Your task to perform on an android device: toggle translation in the chrome app Image 0: 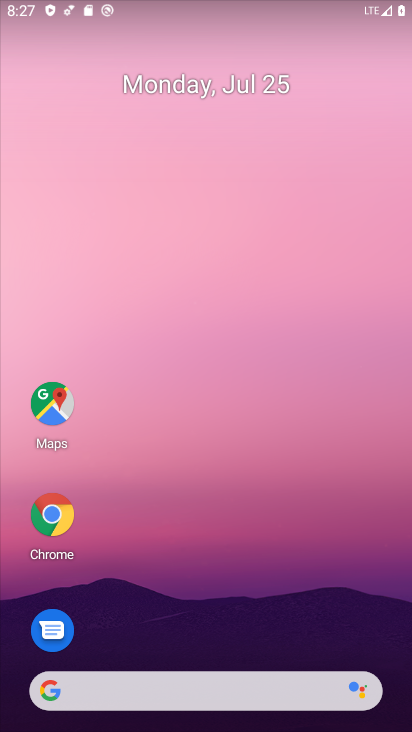
Step 0: click (40, 523)
Your task to perform on an android device: toggle translation in the chrome app Image 1: 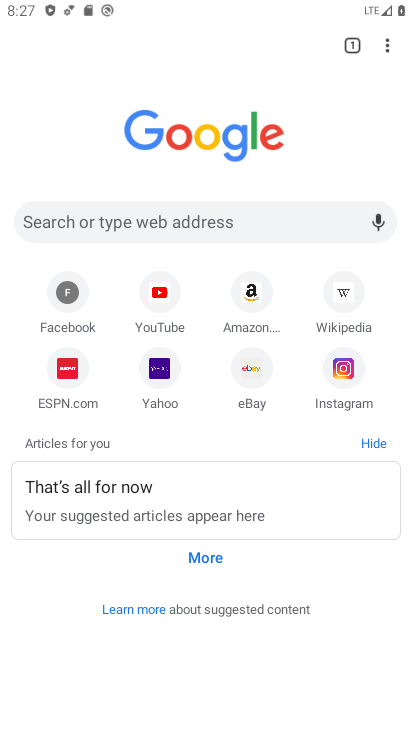
Step 1: click (383, 43)
Your task to perform on an android device: toggle translation in the chrome app Image 2: 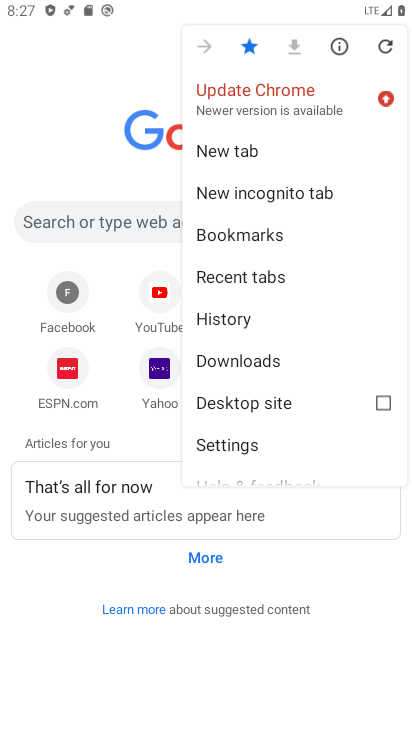
Step 2: click (216, 435)
Your task to perform on an android device: toggle translation in the chrome app Image 3: 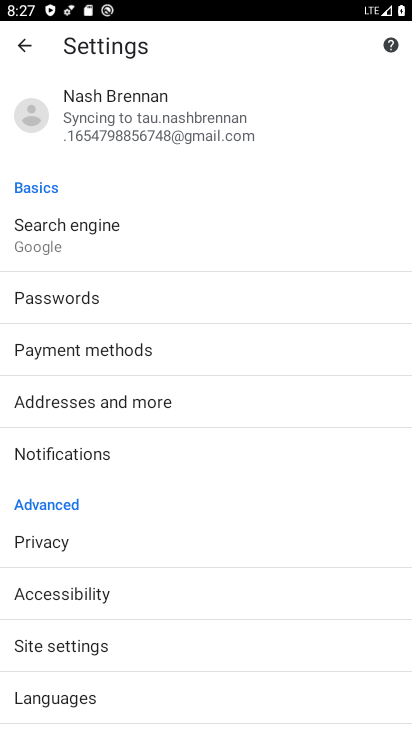
Step 3: click (62, 703)
Your task to perform on an android device: toggle translation in the chrome app Image 4: 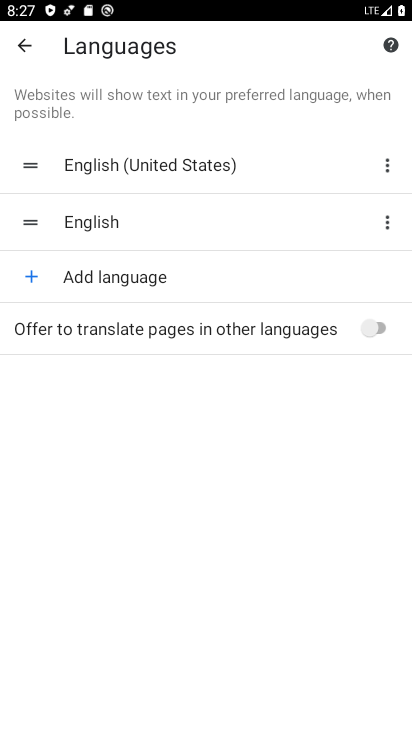
Step 4: click (368, 335)
Your task to perform on an android device: toggle translation in the chrome app Image 5: 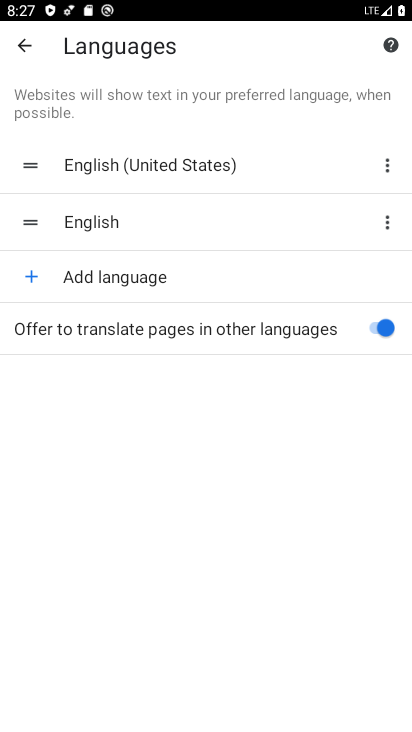
Step 5: task complete